Your task to perform on an android device: Open notification settings Image 0: 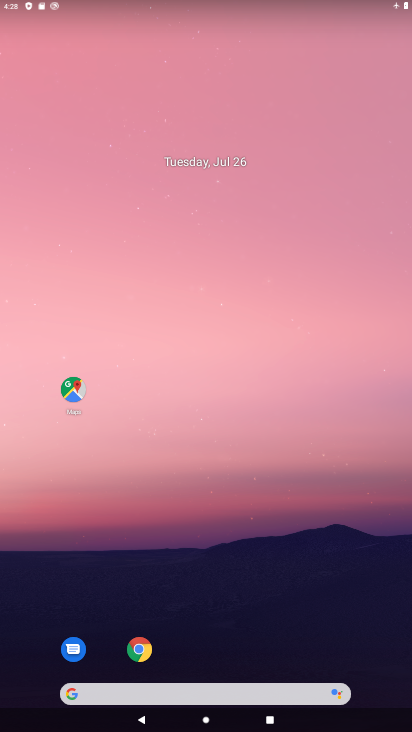
Step 0: drag from (200, 640) to (221, 183)
Your task to perform on an android device: Open notification settings Image 1: 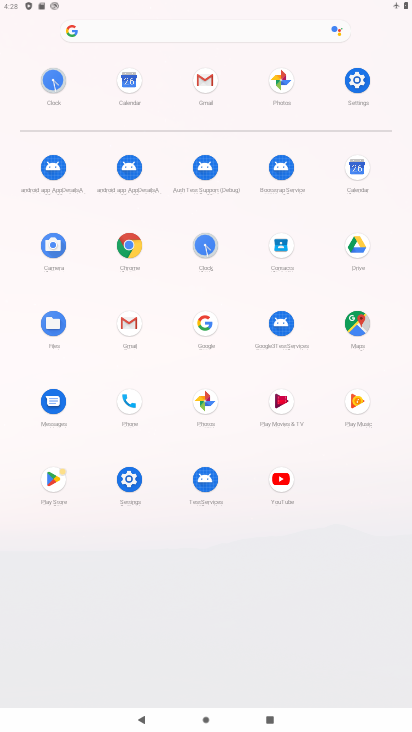
Step 1: click (351, 80)
Your task to perform on an android device: Open notification settings Image 2: 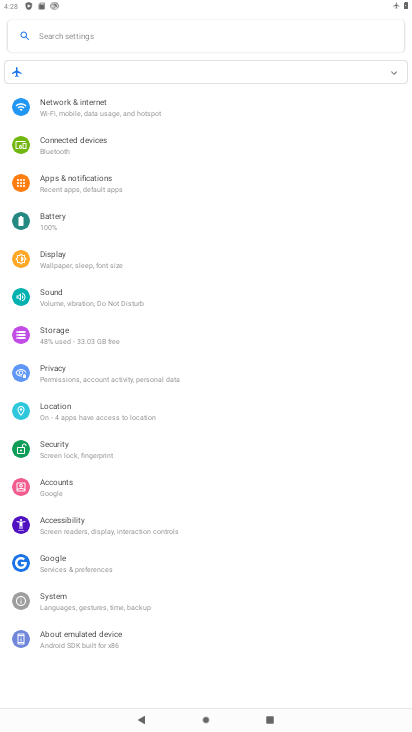
Step 2: click (96, 194)
Your task to perform on an android device: Open notification settings Image 3: 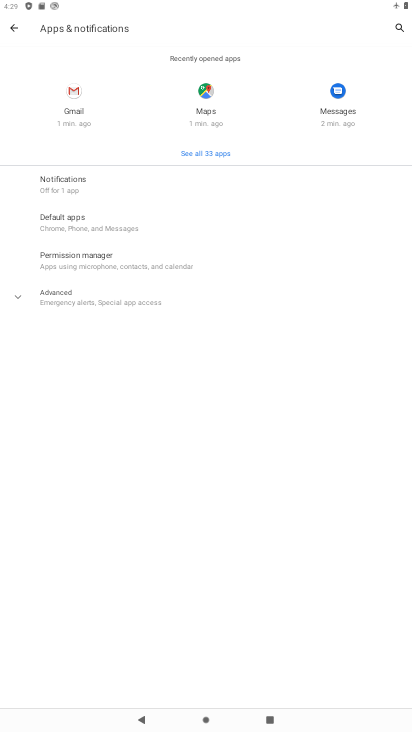
Step 3: click (50, 182)
Your task to perform on an android device: Open notification settings Image 4: 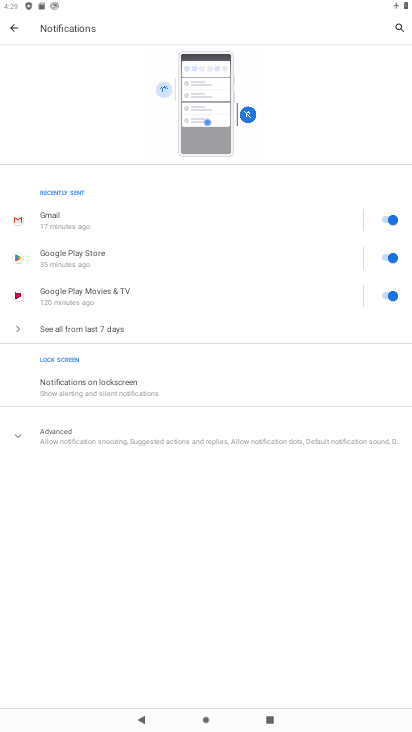
Step 4: task complete